Your task to perform on an android device: toggle javascript in the chrome app Image 0: 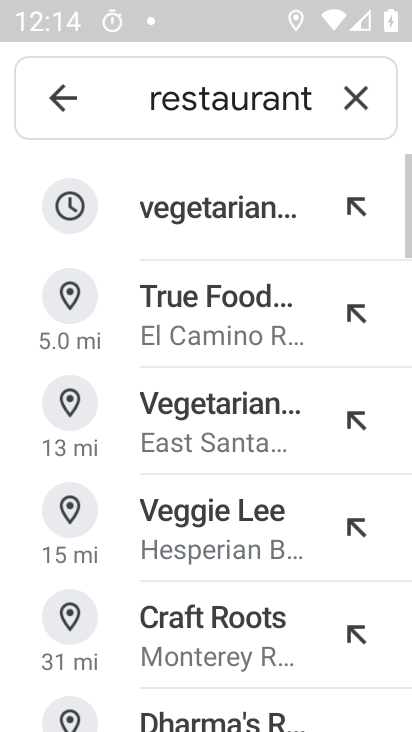
Step 0: press home button
Your task to perform on an android device: toggle javascript in the chrome app Image 1: 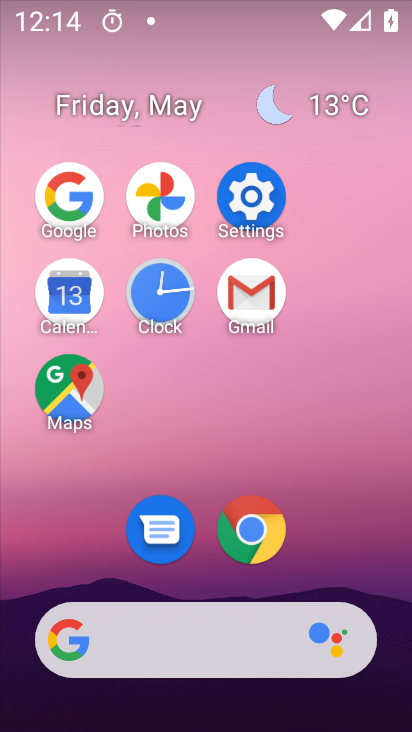
Step 1: click (265, 523)
Your task to perform on an android device: toggle javascript in the chrome app Image 2: 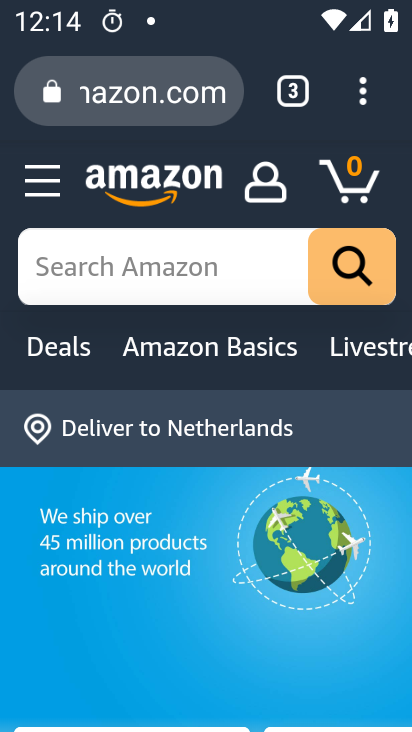
Step 2: click (376, 94)
Your task to perform on an android device: toggle javascript in the chrome app Image 3: 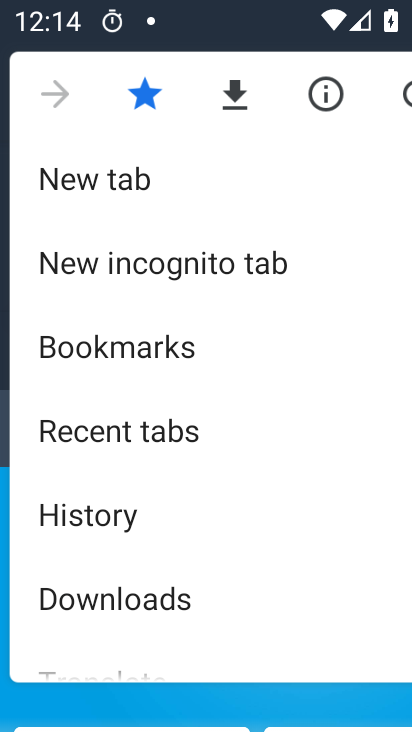
Step 3: drag from (254, 593) to (263, 132)
Your task to perform on an android device: toggle javascript in the chrome app Image 4: 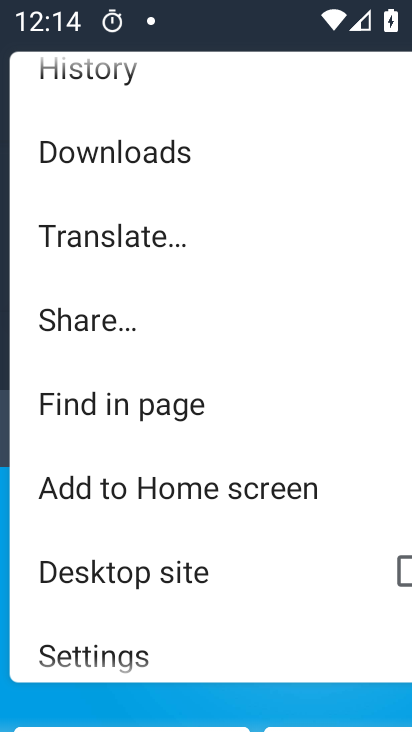
Step 4: click (148, 675)
Your task to perform on an android device: toggle javascript in the chrome app Image 5: 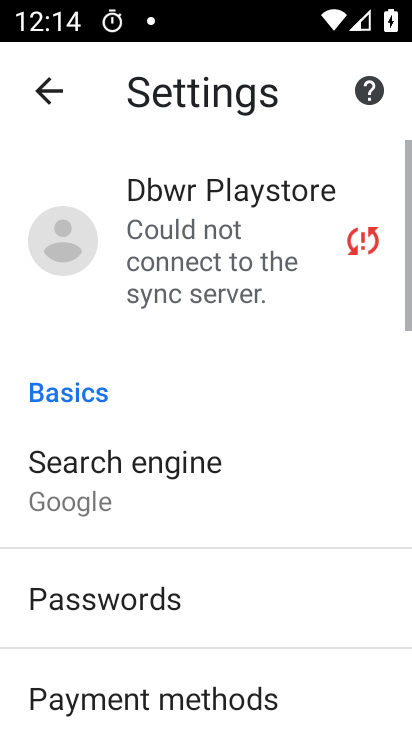
Step 5: drag from (140, 570) to (213, 181)
Your task to perform on an android device: toggle javascript in the chrome app Image 6: 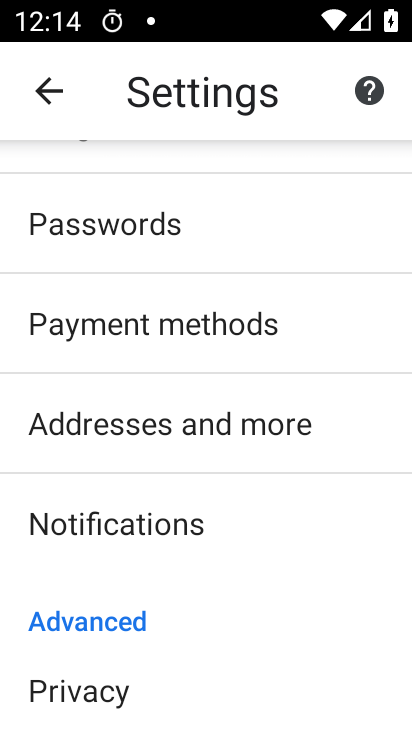
Step 6: drag from (176, 676) to (223, 218)
Your task to perform on an android device: toggle javascript in the chrome app Image 7: 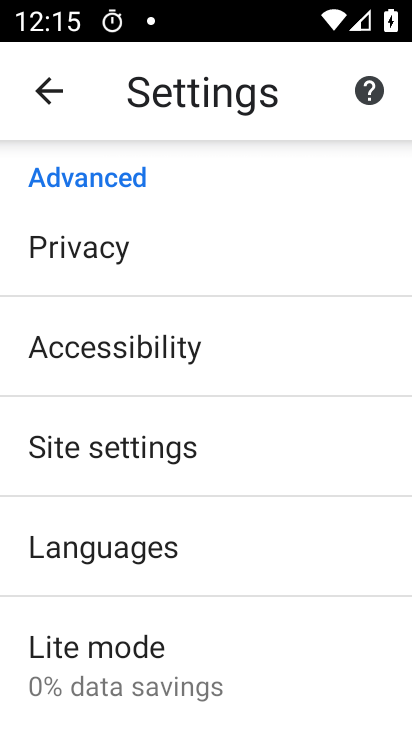
Step 7: click (154, 430)
Your task to perform on an android device: toggle javascript in the chrome app Image 8: 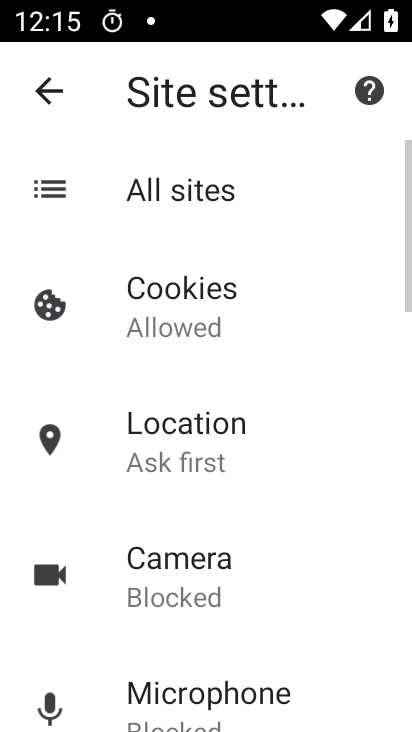
Step 8: drag from (207, 597) to (263, 142)
Your task to perform on an android device: toggle javascript in the chrome app Image 9: 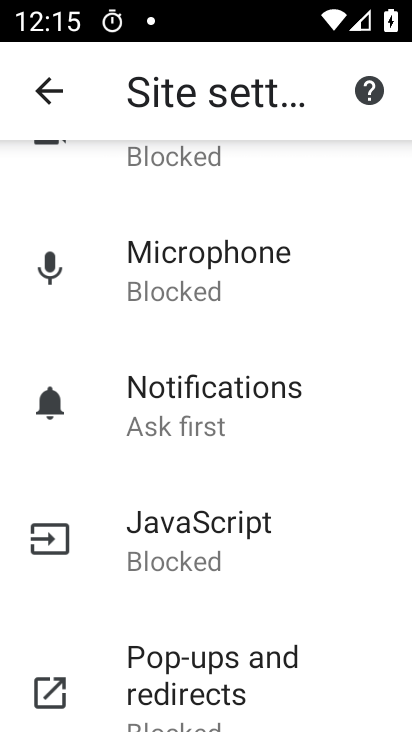
Step 9: click (226, 550)
Your task to perform on an android device: toggle javascript in the chrome app Image 10: 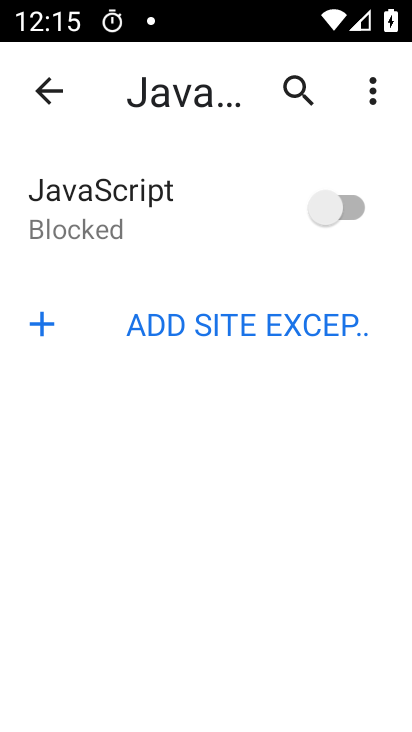
Step 10: click (350, 211)
Your task to perform on an android device: toggle javascript in the chrome app Image 11: 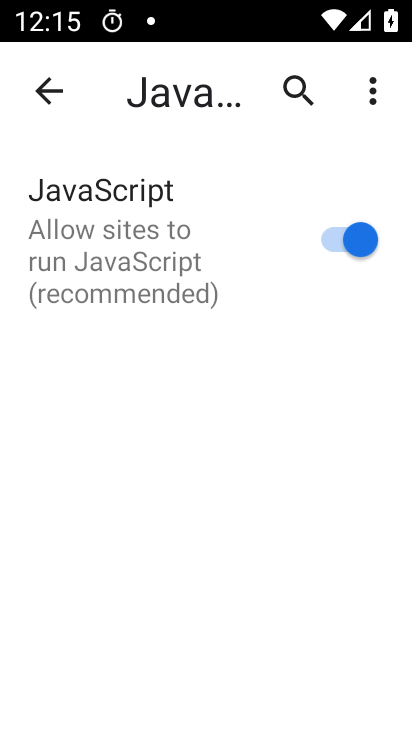
Step 11: task complete